Your task to perform on an android device: open wifi settings Image 0: 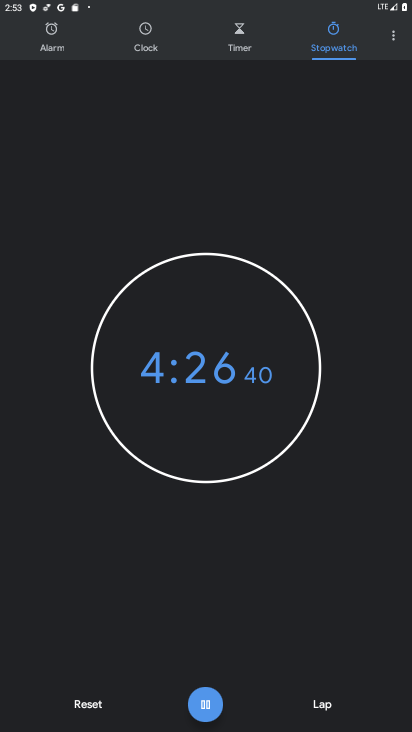
Step 0: press home button
Your task to perform on an android device: open wifi settings Image 1: 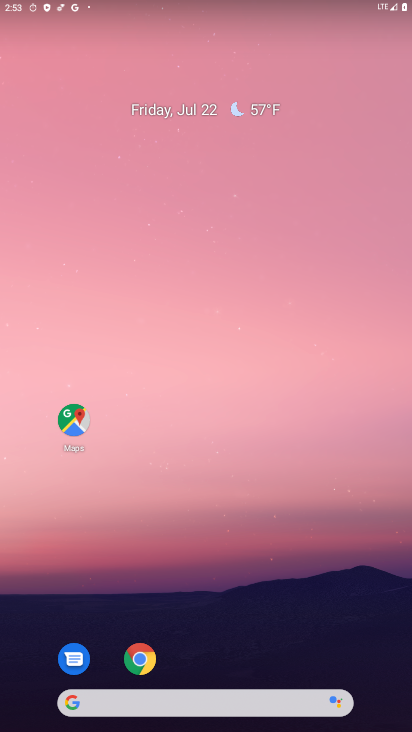
Step 1: drag from (251, 640) to (261, 108)
Your task to perform on an android device: open wifi settings Image 2: 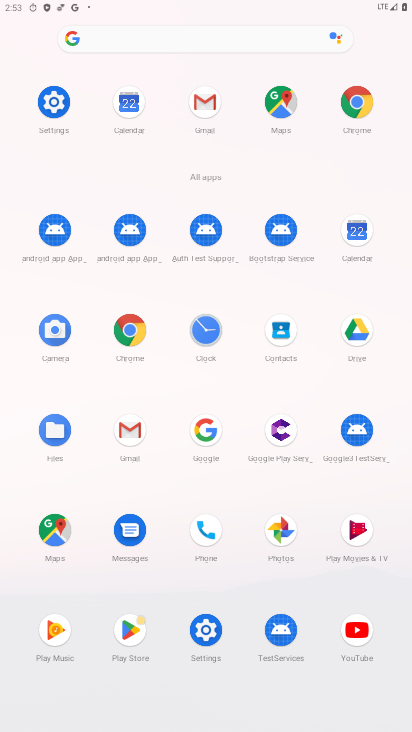
Step 2: click (61, 93)
Your task to perform on an android device: open wifi settings Image 3: 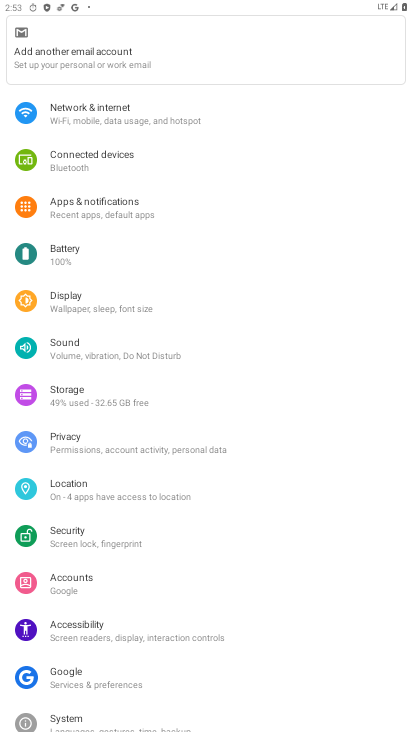
Step 3: click (124, 118)
Your task to perform on an android device: open wifi settings Image 4: 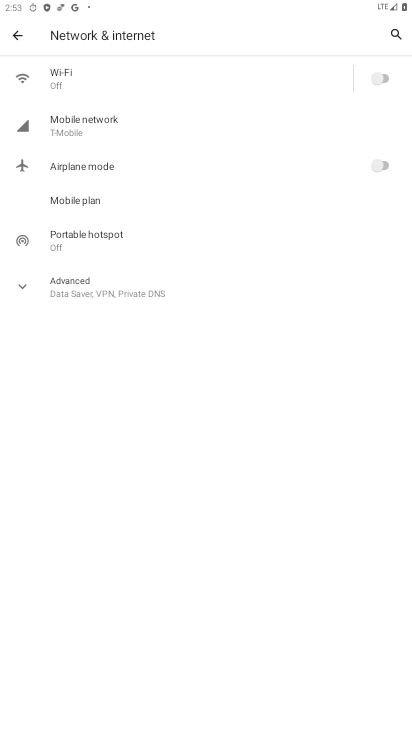
Step 4: click (102, 84)
Your task to perform on an android device: open wifi settings Image 5: 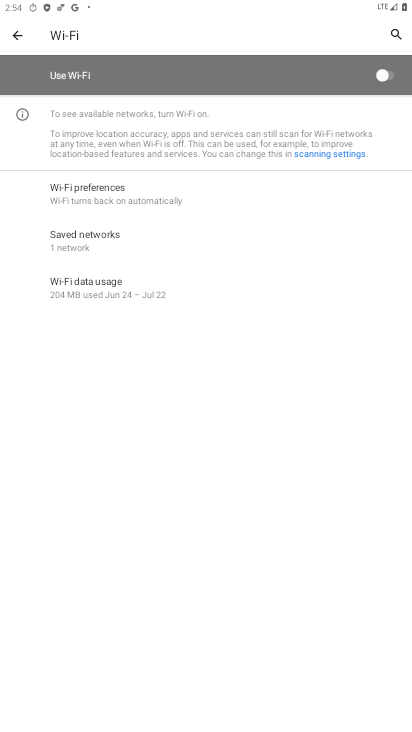
Step 5: task complete